Your task to perform on an android device: turn off wifi Image 0: 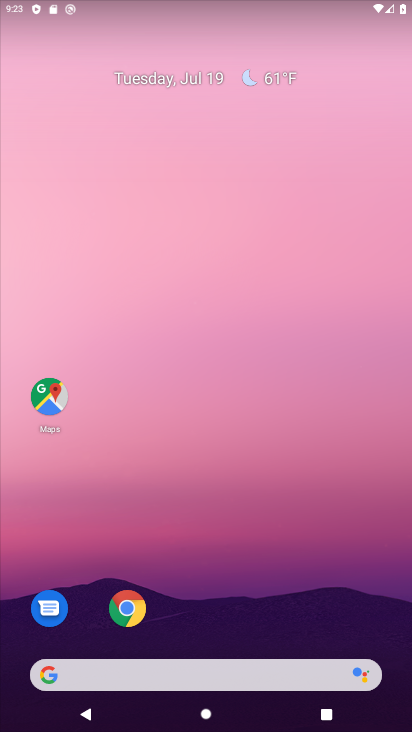
Step 0: drag from (237, 592) to (148, 117)
Your task to perform on an android device: turn off wifi Image 1: 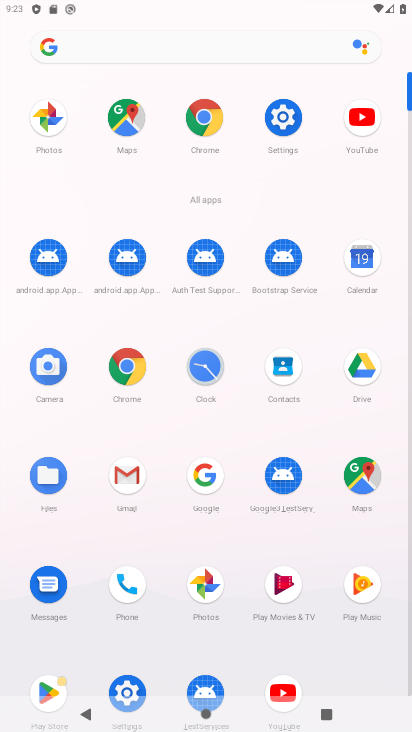
Step 1: click (280, 117)
Your task to perform on an android device: turn off wifi Image 2: 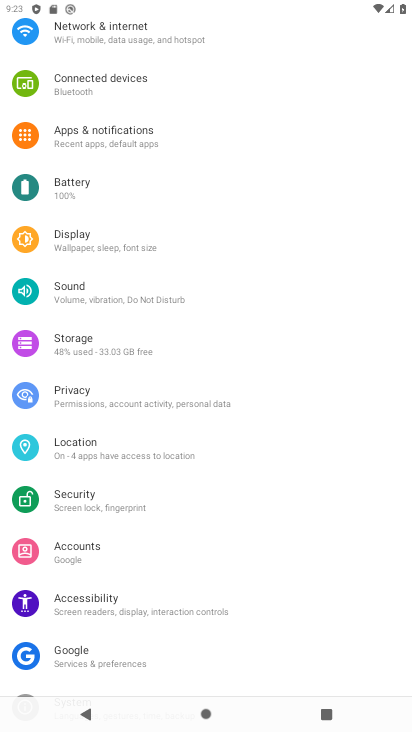
Step 2: drag from (248, 125) to (330, 641)
Your task to perform on an android device: turn off wifi Image 3: 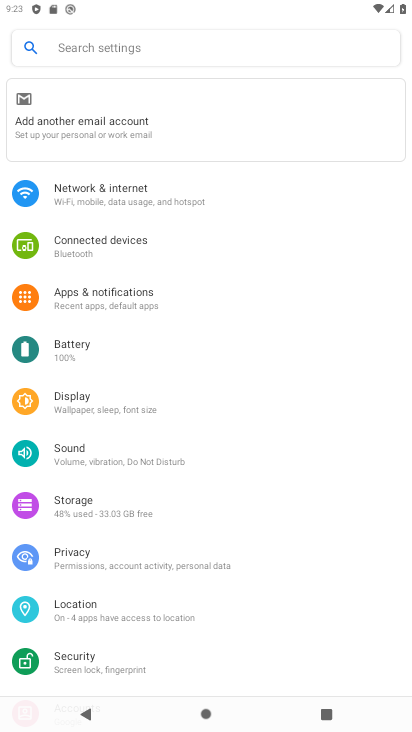
Step 3: click (104, 186)
Your task to perform on an android device: turn off wifi Image 4: 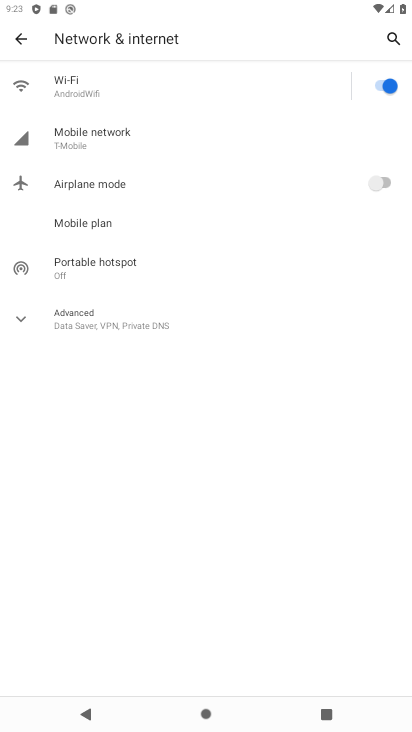
Step 4: click (388, 84)
Your task to perform on an android device: turn off wifi Image 5: 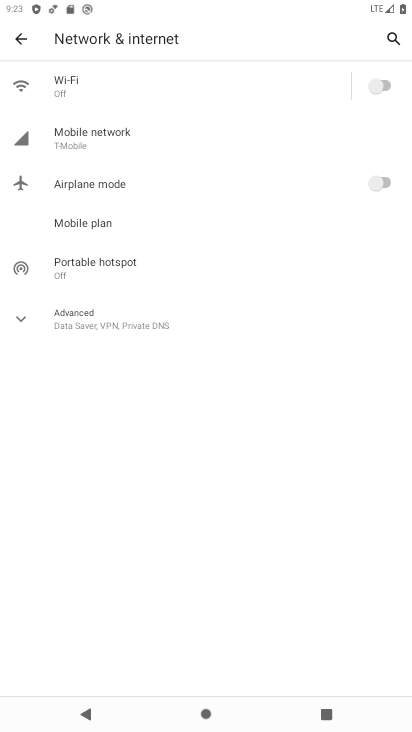
Step 5: task complete